Your task to perform on an android device: Turn off the flashlight Image 0: 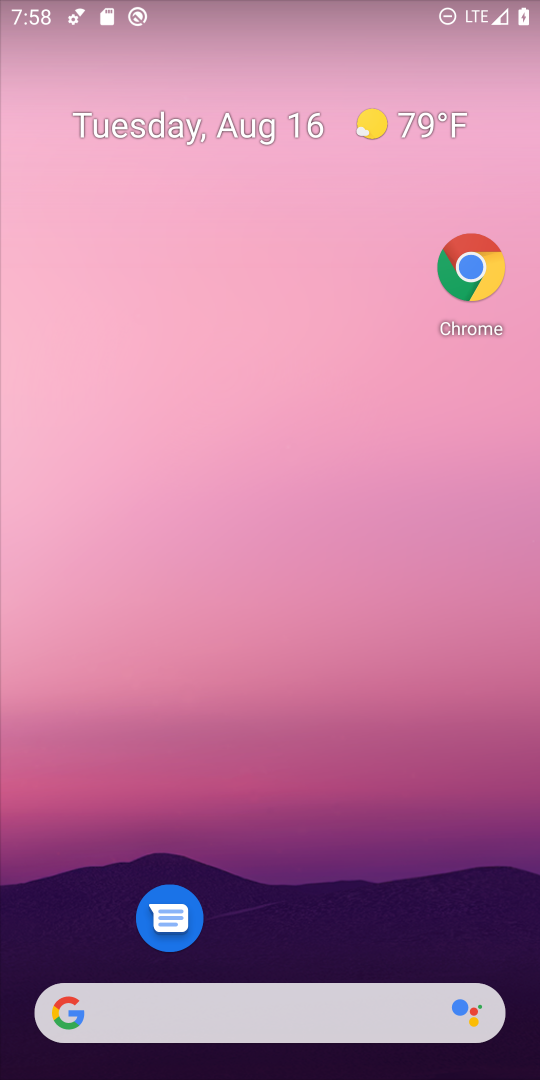
Step 0: drag from (392, 903) to (389, 2)
Your task to perform on an android device: Turn off the flashlight Image 1: 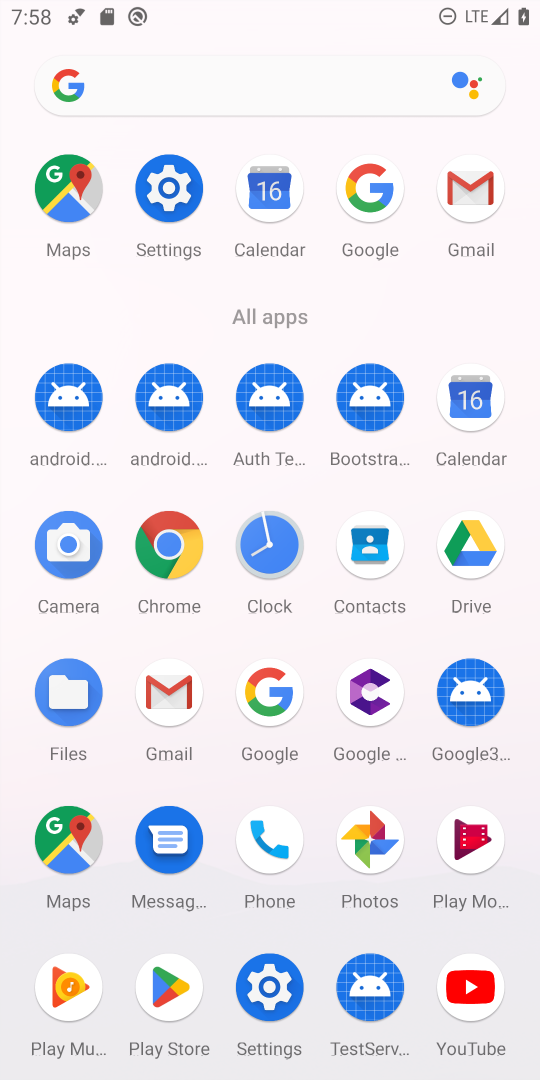
Step 1: task complete